Your task to perform on an android device: turn off javascript in the chrome app Image 0: 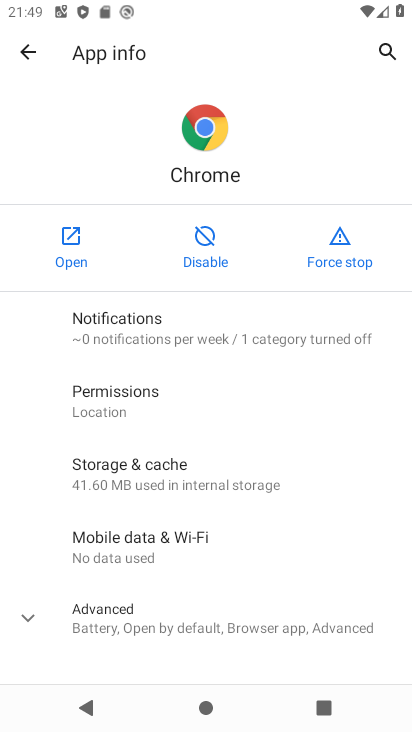
Step 0: press home button
Your task to perform on an android device: turn off javascript in the chrome app Image 1: 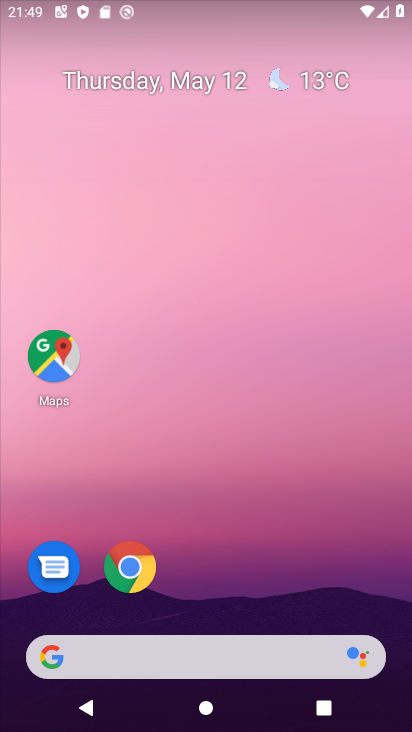
Step 1: click (127, 560)
Your task to perform on an android device: turn off javascript in the chrome app Image 2: 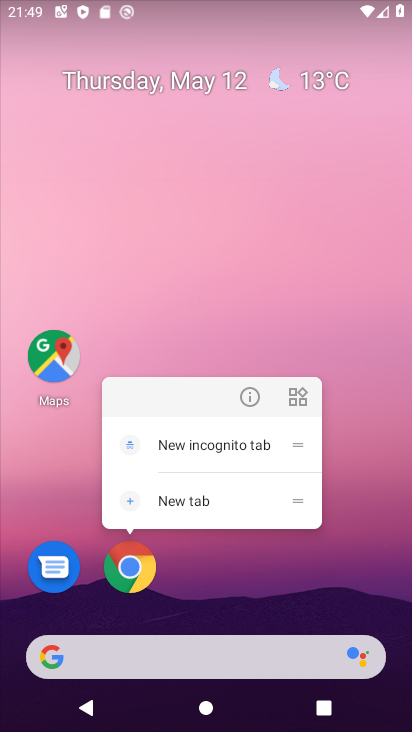
Step 2: click (127, 560)
Your task to perform on an android device: turn off javascript in the chrome app Image 3: 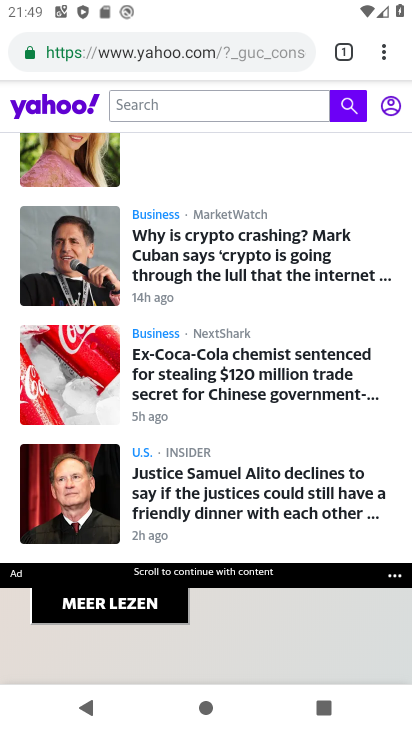
Step 3: click (383, 46)
Your task to perform on an android device: turn off javascript in the chrome app Image 4: 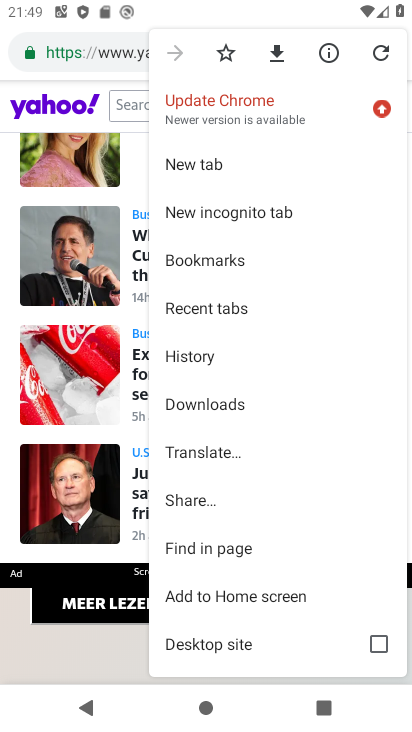
Step 4: drag from (263, 612) to (271, 114)
Your task to perform on an android device: turn off javascript in the chrome app Image 5: 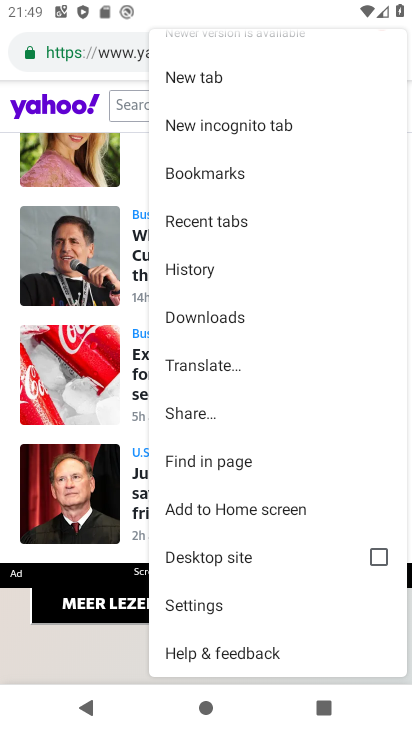
Step 5: click (227, 603)
Your task to perform on an android device: turn off javascript in the chrome app Image 6: 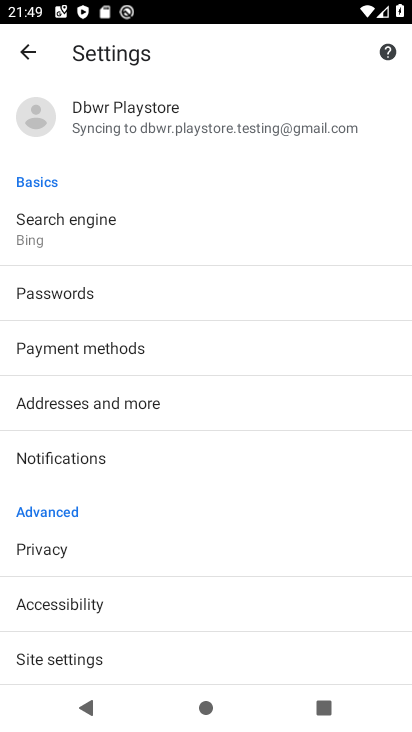
Step 6: drag from (202, 650) to (226, 84)
Your task to perform on an android device: turn off javascript in the chrome app Image 7: 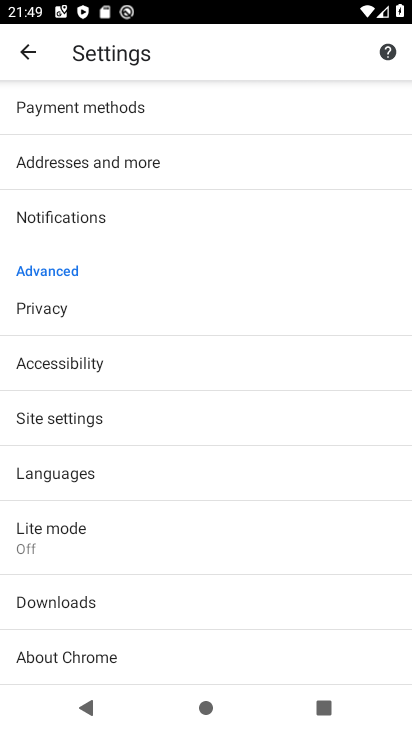
Step 7: click (105, 413)
Your task to perform on an android device: turn off javascript in the chrome app Image 8: 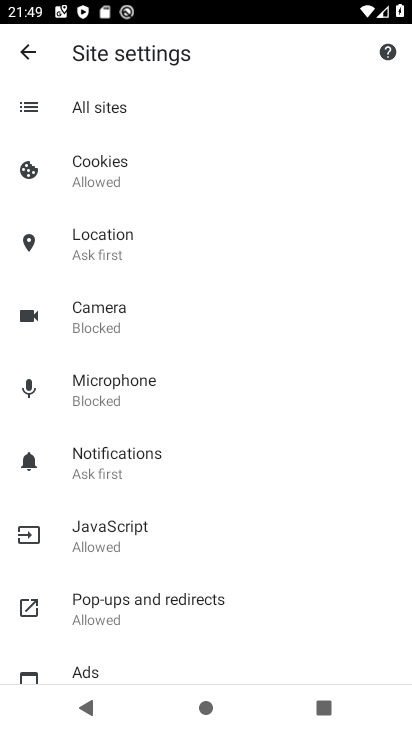
Step 8: click (154, 533)
Your task to perform on an android device: turn off javascript in the chrome app Image 9: 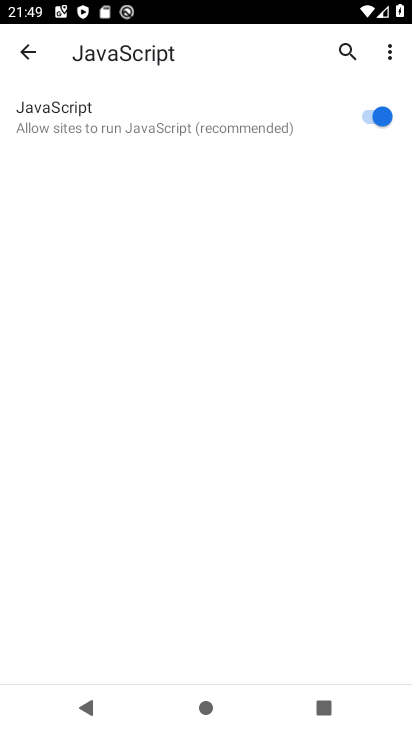
Step 9: click (369, 115)
Your task to perform on an android device: turn off javascript in the chrome app Image 10: 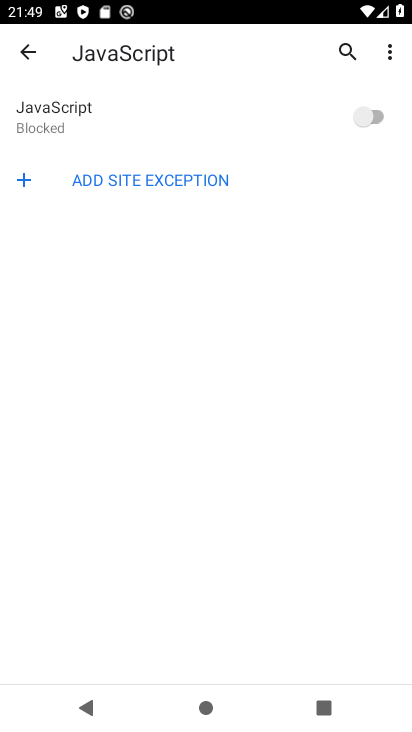
Step 10: task complete